Your task to perform on an android device: Clear the shopping cart on walmart.com. Search for corsair k70 on walmart.com, select the first entry, and add it to the cart. Image 0: 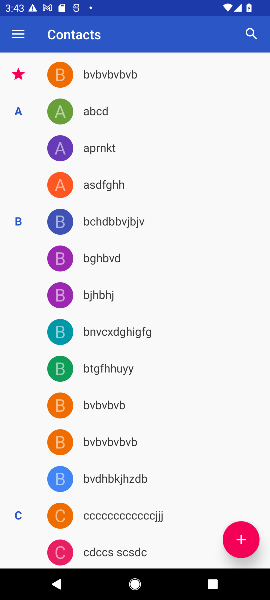
Step 0: press home button
Your task to perform on an android device: Clear the shopping cart on walmart.com. Search for corsair k70 on walmart.com, select the first entry, and add it to the cart. Image 1: 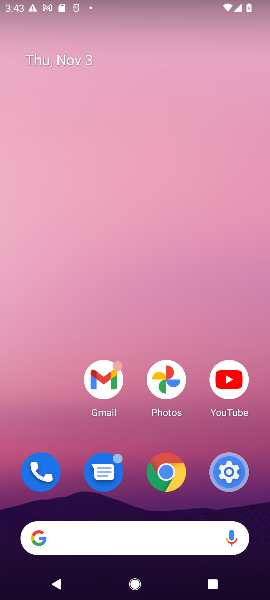
Step 1: click (123, 528)
Your task to perform on an android device: Clear the shopping cart on walmart.com. Search for corsair k70 on walmart.com, select the first entry, and add it to the cart. Image 2: 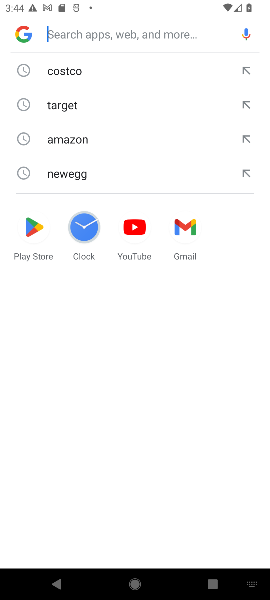
Step 2: task complete